Your task to perform on an android device: Go to settings Image 0: 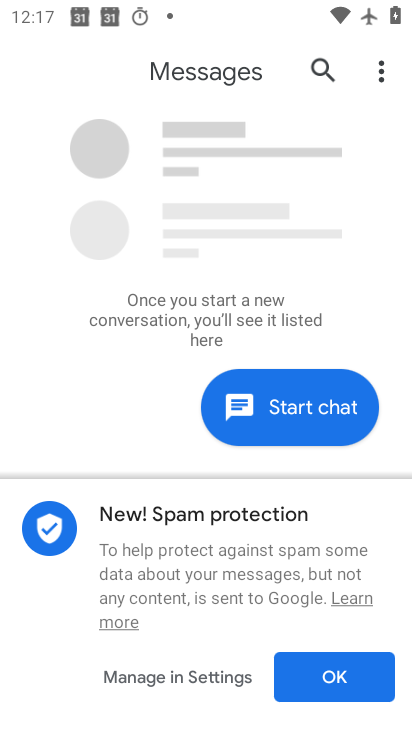
Step 0: press home button
Your task to perform on an android device: Go to settings Image 1: 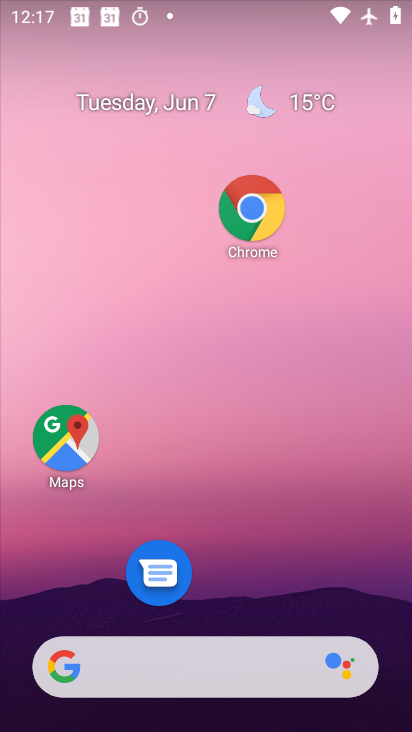
Step 1: drag from (202, 591) to (178, 179)
Your task to perform on an android device: Go to settings Image 2: 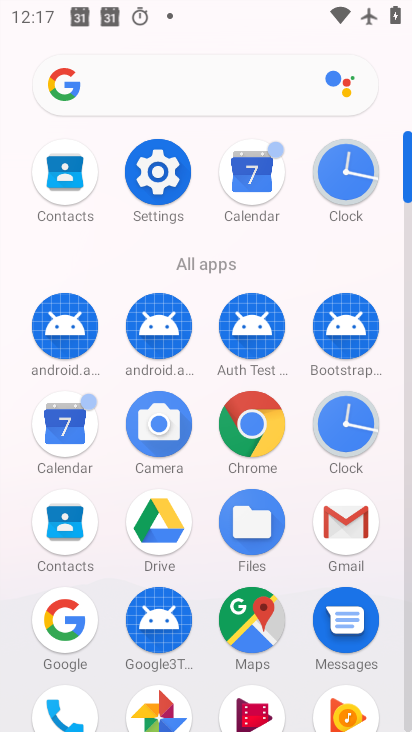
Step 2: click (175, 192)
Your task to perform on an android device: Go to settings Image 3: 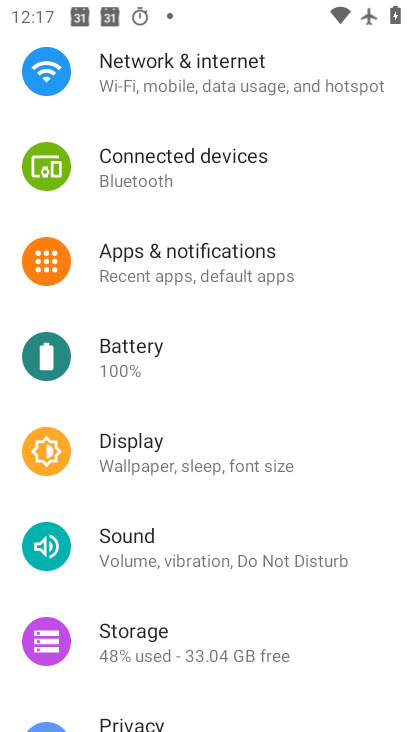
Step 3: task complete